Your task to perform on an android device: turn off improve location accuracy Image 0: 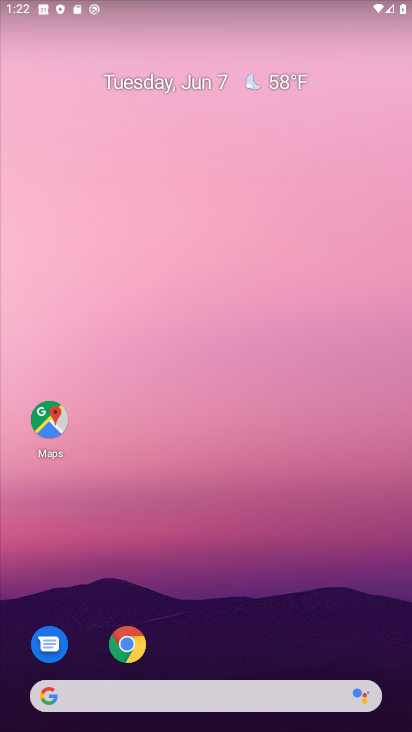
Step 0: drag from (165, 724) to (146, 196)
Your task to perform on an android device: turn off improve location accuracy Image 1: 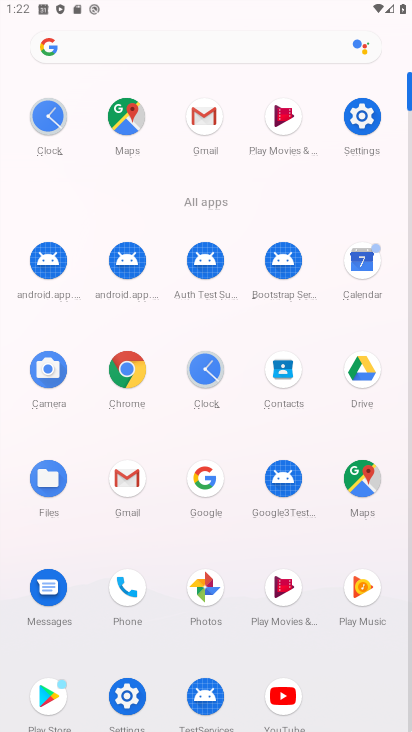
Step 1: click (350, 123)
Your task to perform on an android device: turn off improve location accuracy Image 2: 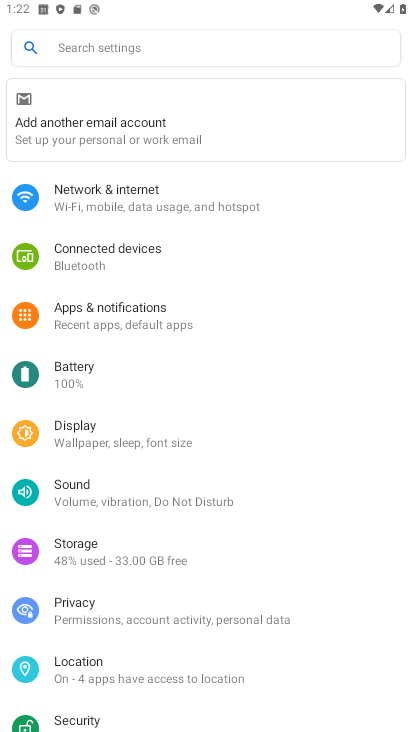
Step 2: click (101, 669)
Your task to perform on an android device: turn off improve location accuracy Image 3: 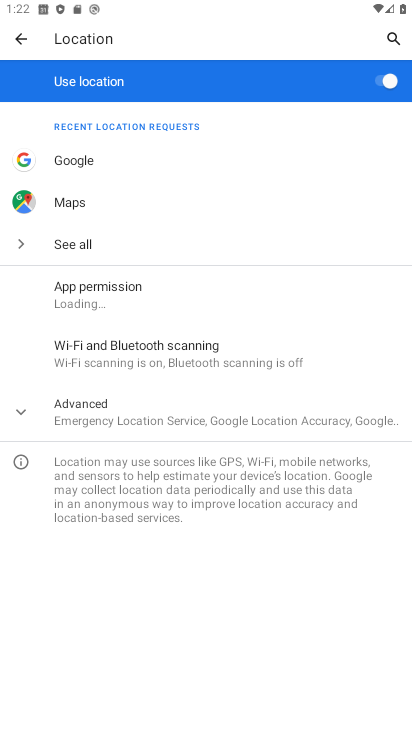
Step 3: click (160, 417)
Your task to perform on an android device: turn off improve location accuracy Image 4: 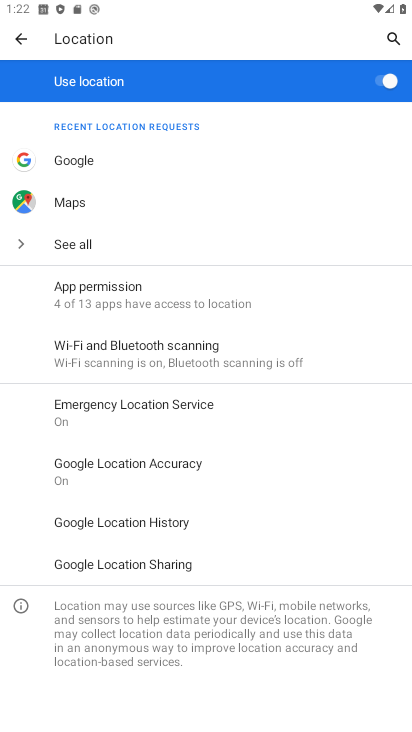
Step 4: click (107, 483)
Your task to perform on an android device: turn off improve location accuracy Image 5: 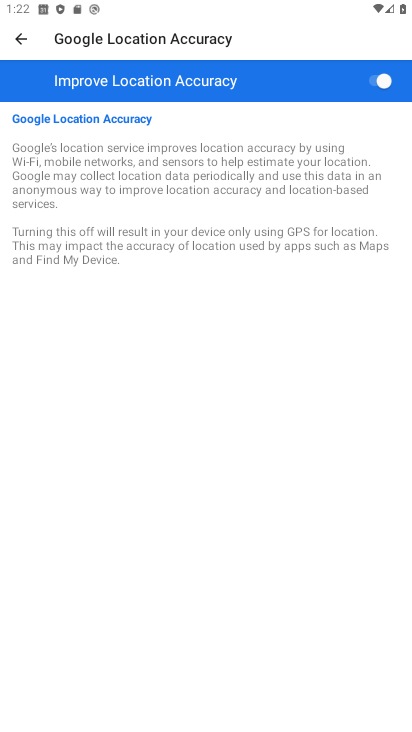
Step 5: click (385, 84)
Your task to perform on an android device: turn off improve location accuracy Image 6: 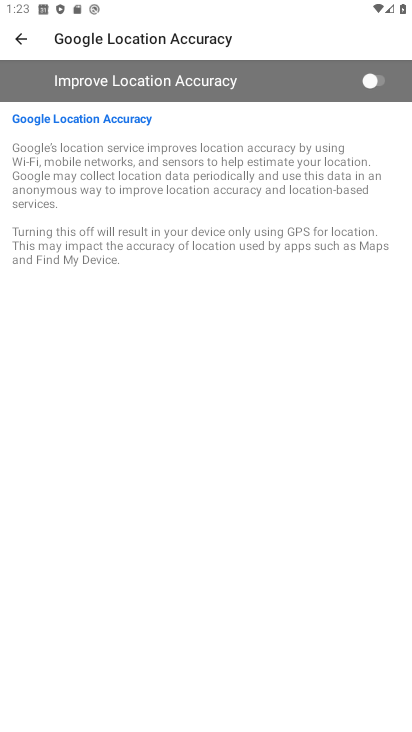
Step 6: task complete